Your task to perform on an android device: Show the shopping cart on bestbuy. Add razer deathadder to the cart on bestbuy, then select checkout. Image 0: 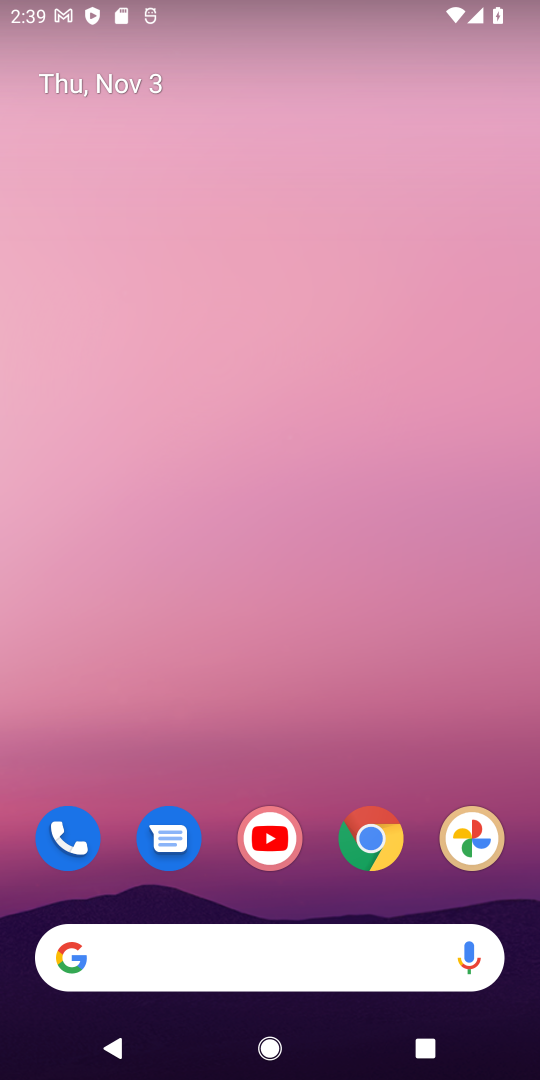
Step 0: drag from (314, 894) to (309, 85)
Your task to perform on an android device: Show the shopping cart on bestbuy. Add razer deathadder to the cart on bestbuy, then select checkout. Image 1: 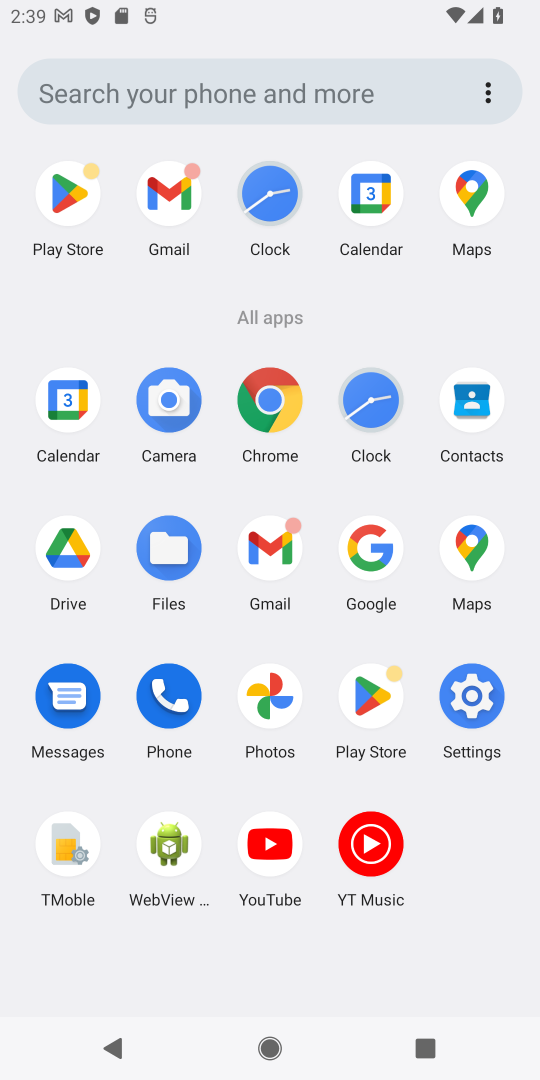
Step 1: click (268, 398)
Your task to perform on an android device: Show the shopping cart on bestbuy. Add razer deathadder to the cart on bestbuy, then select checkout. Image 2: 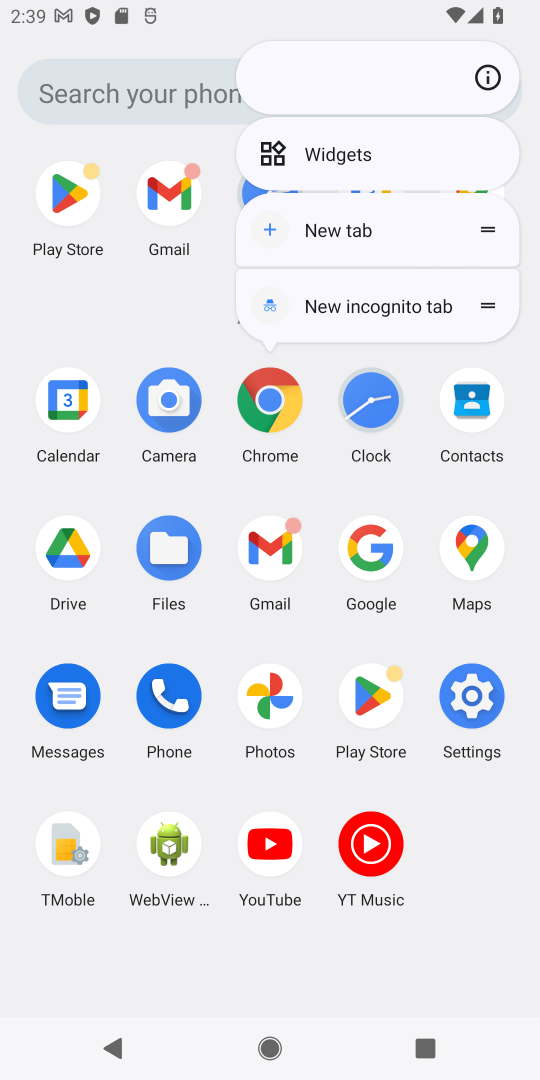
Step 2: click (268, 398)
Your task to perform on an android device: Show the shopping cart on bestbuy. Add razer deathadder to the cart on bestbuy, then select checkout. Image 3: 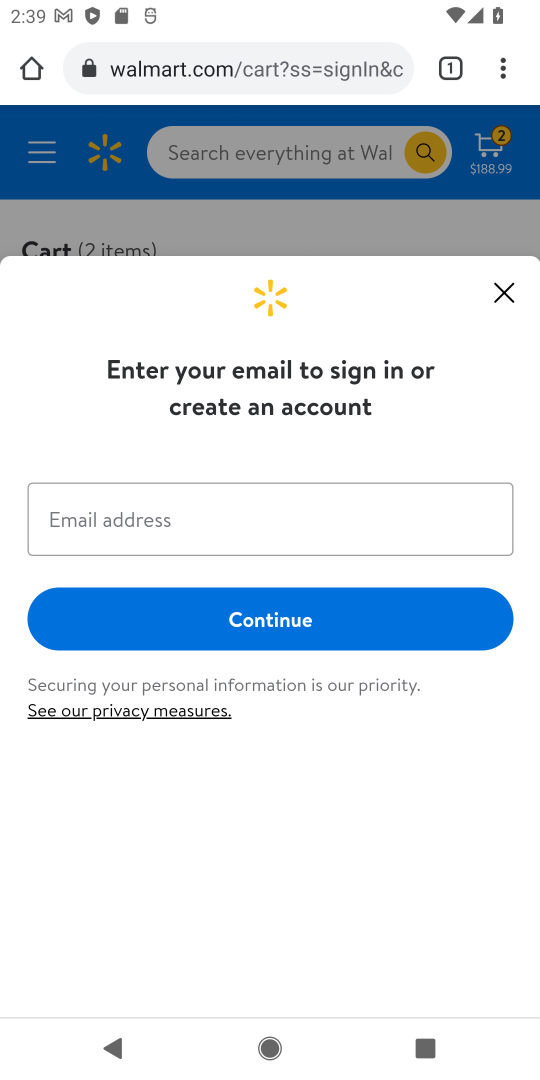
Step 3: click (316, 61)
Your task to perform on an android device: Show the shopping cart on bestbuy. Add razer deathadder to the cart on bestbuy, then select checkout. Image 4: 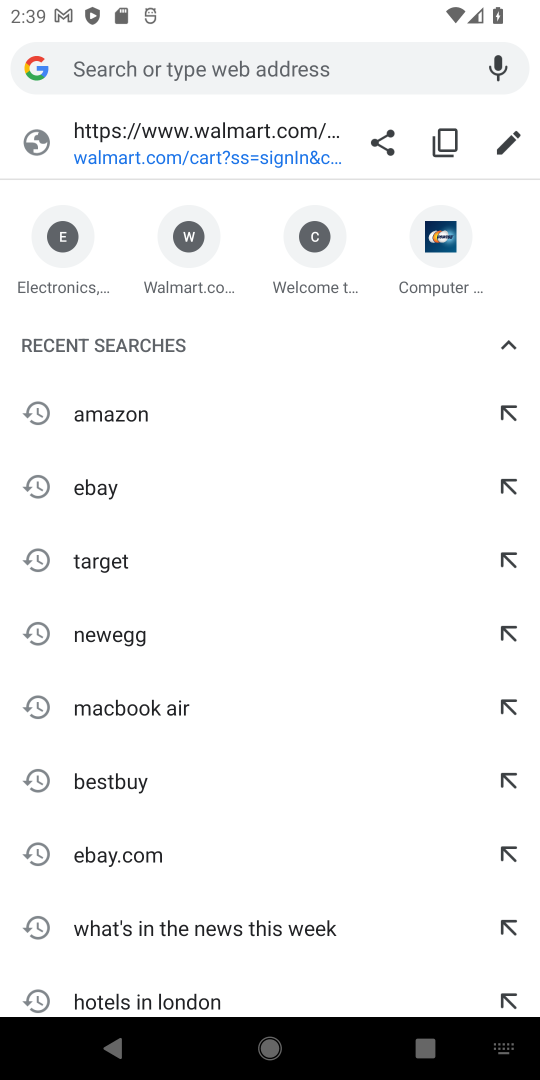
Step 4: type "bestbuy.com"
Your task to perform on an android device: Show the shopping cart on bestbuy. Add razer deathadder to the cart on bestbuy, then select checkout. Image 5: 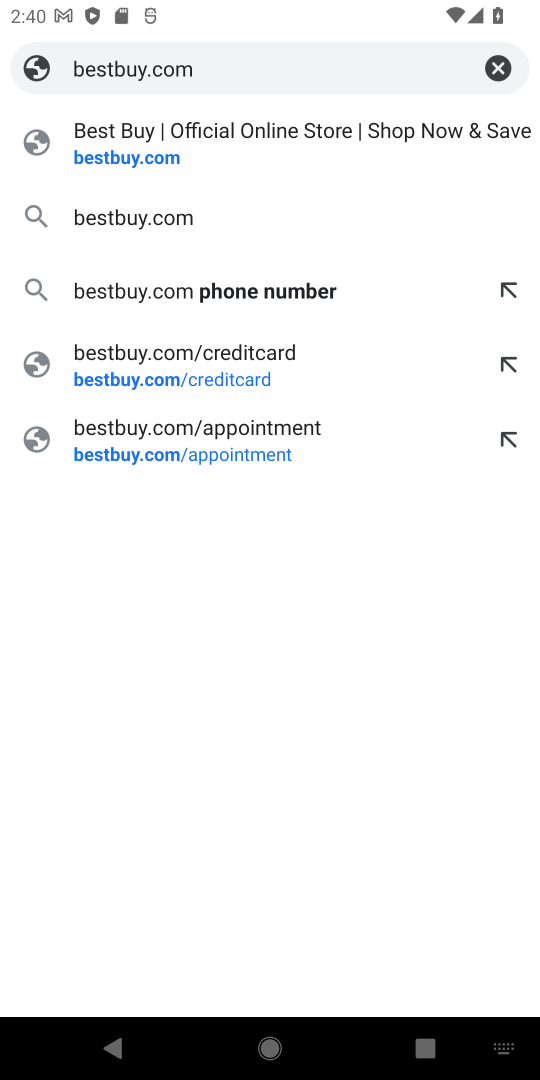
Step 5: press enter
Your task to perform on an android device: Show the shopping cart on bestbuy. Add razer deathadder to the cart on bestbuy, then select checkout. Image 6: 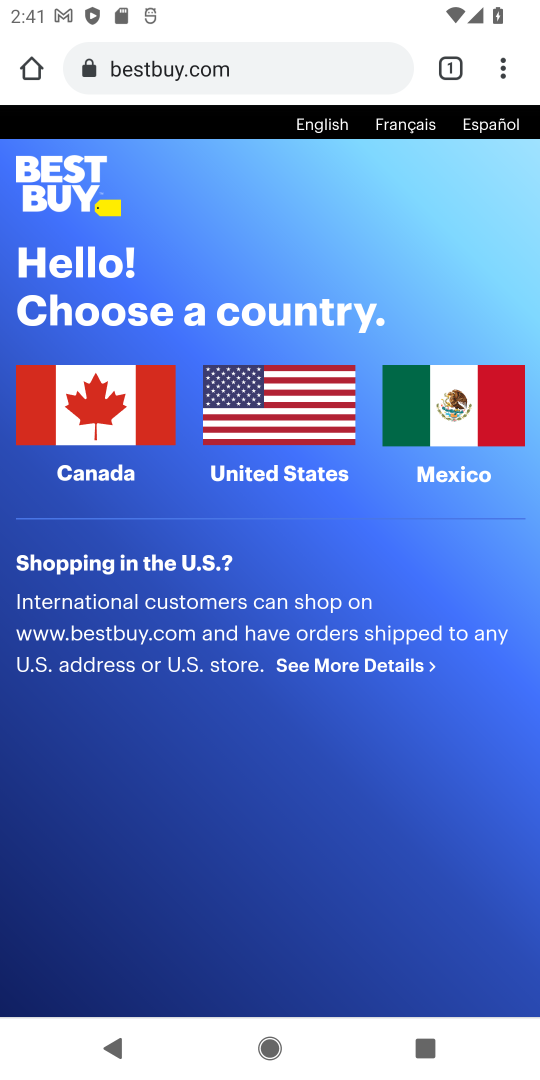
Step 6: click (67, 409)
Your task to perform on an android device: Show the shopping cart on bestbuy. Add razer deathadder to the cart on bestbuy, then select checkout. Image 7: 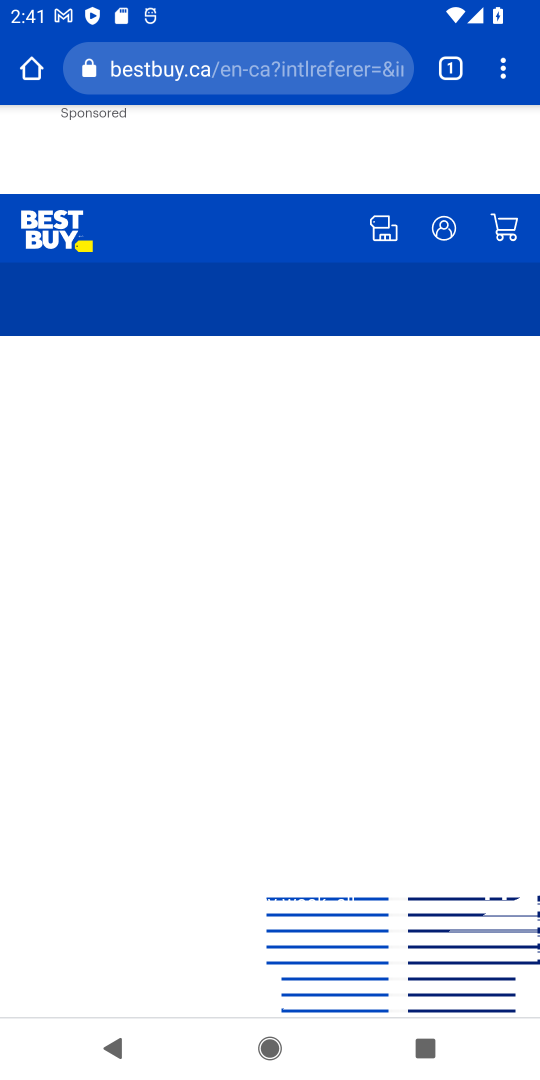
Step 7: click (412, 156)
Your task to perform on an android device: Show the shopping cart on bestbuy. Add razer deathadder to the cart on bestbuy, then select checkout. Image 8: 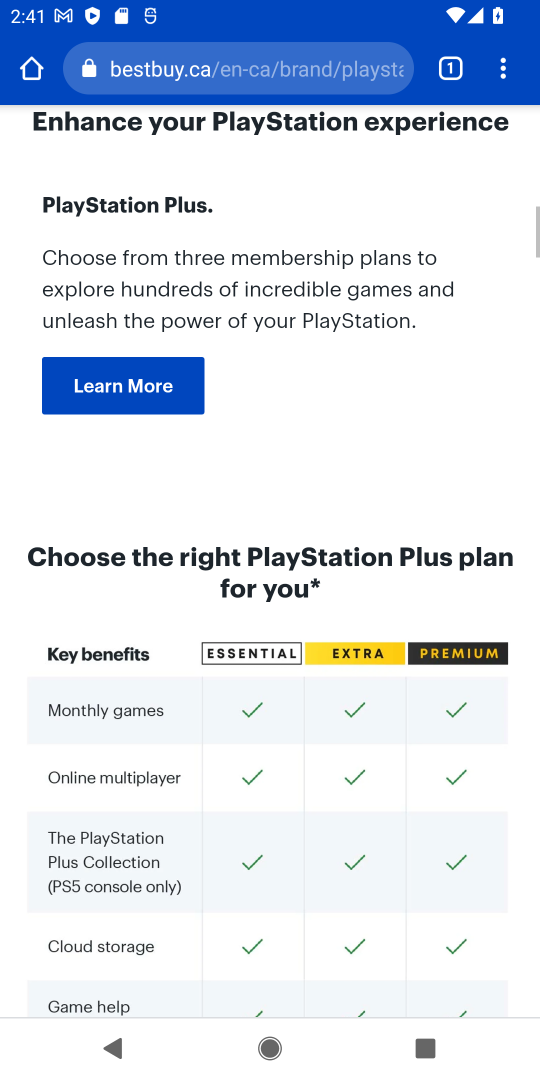
Step 8: drag from (318, 303) to (291, 964)
Your task to perform on an android device: Show the shopping cart on bestbuy. Add razer deathadder to the cart on bestbuy, then select checkout. Image 9: 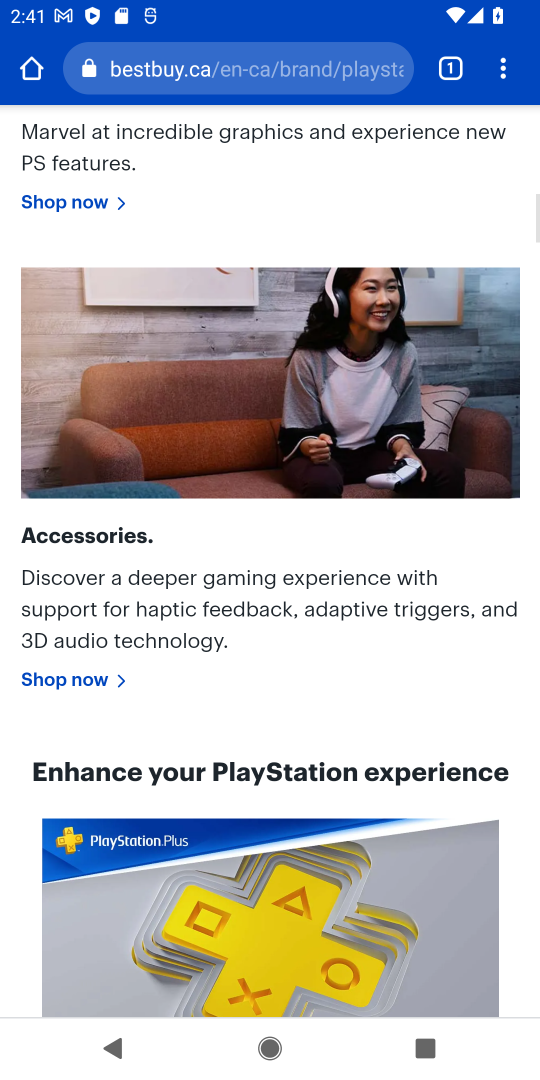
Step 9: drag from (273, 173) to (205, 942)
Your task to perform on an android device: Show the shopping cart on bestbuy. Add razer deathadder to the cart on bestbuy, then select checkout. Image 10: 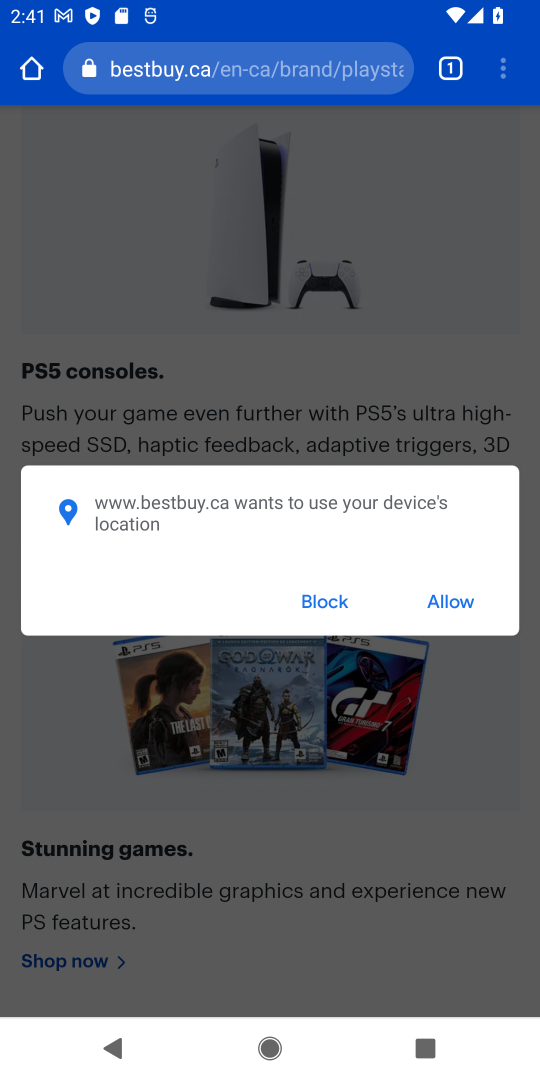
Step 10: click (316, 594)
Your task to perform on an android device: Show the shopping cart on bestbuy. Add razer deathadder to the cart on bestbuy, then select checkout. Image 11: 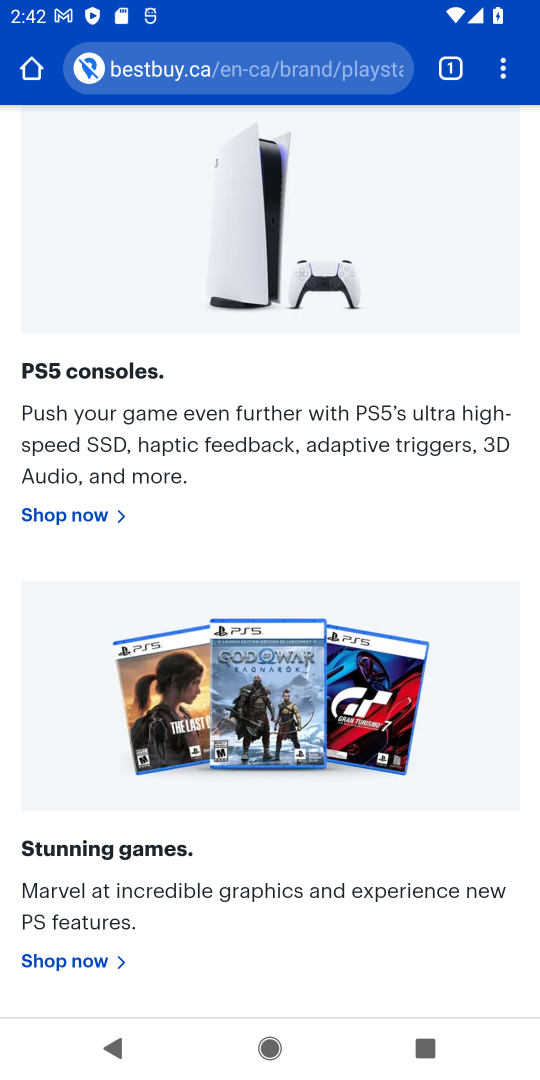
Step 11: drag from (151, 190) to (135, 1015)
Your task to perform on an android device: Show the shopping cart on bestbuy. Add razer deathadder to the cart on bestbuy, then select checkout. Image 12: 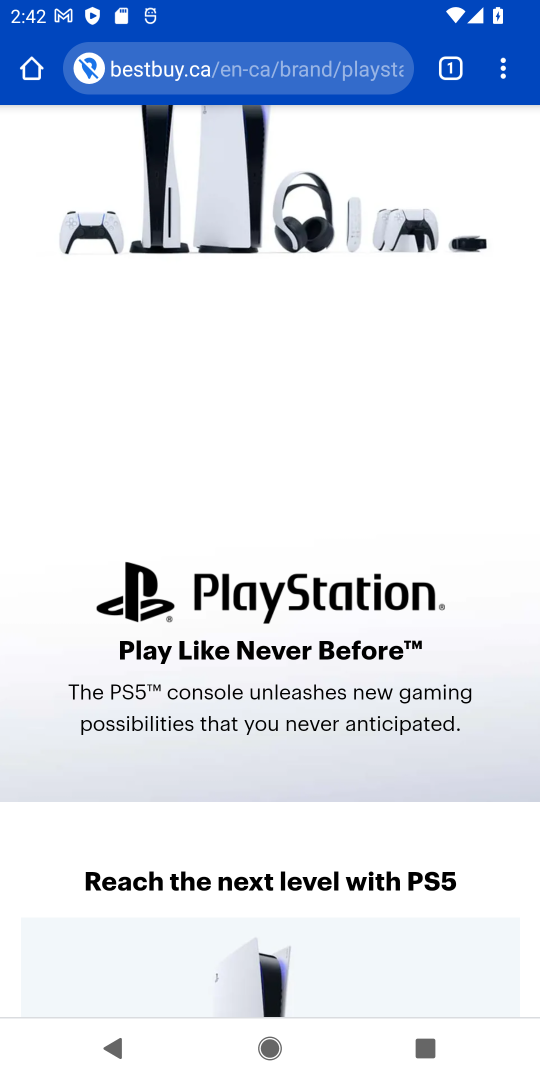
Step 12: drag from (247, 189) to (86, 887)
Your task to perform on an android device: Show the shopping cart on bestbuy. Add razer deathadder to the cart on bestbuy, then select checkout. Image 13: 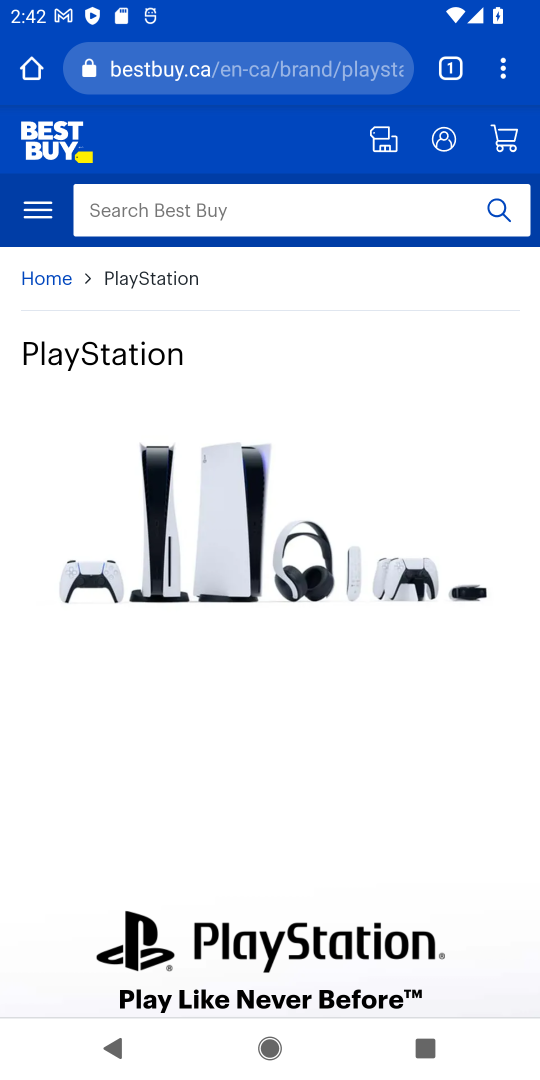
Step 13: click (303, 216)
Your task to perform on an android device: Show the shopping cart on bestbuy. Add razer deathadder to the cart on bestbuy, then select checkout. Image 14: 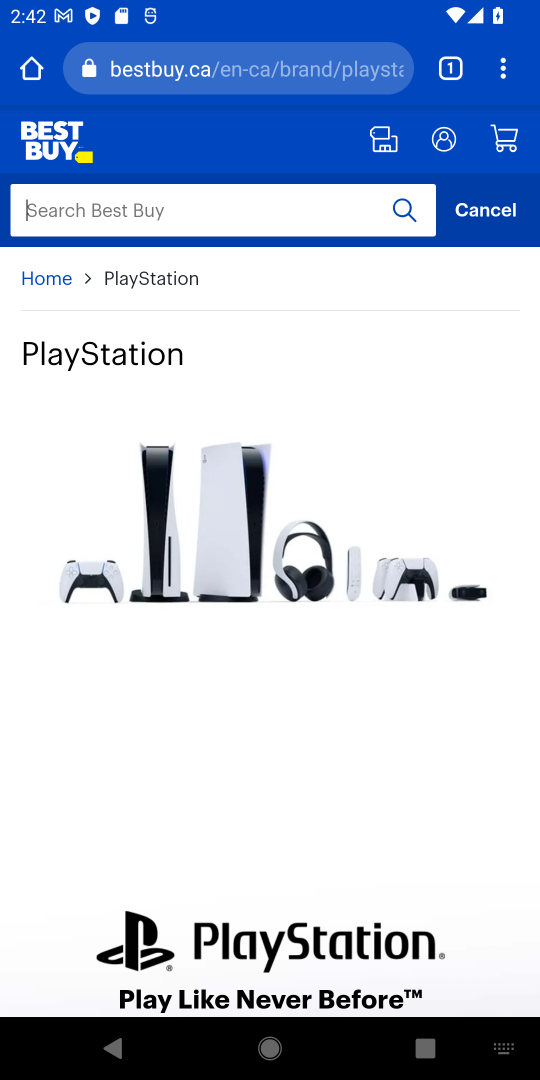
Step 14: click (505, 142)
Your task to perform on an android device: Show the shopping cart on bestbuy. Add razer deathadder to the cart on bestbuy, then select checkout. Image 15: 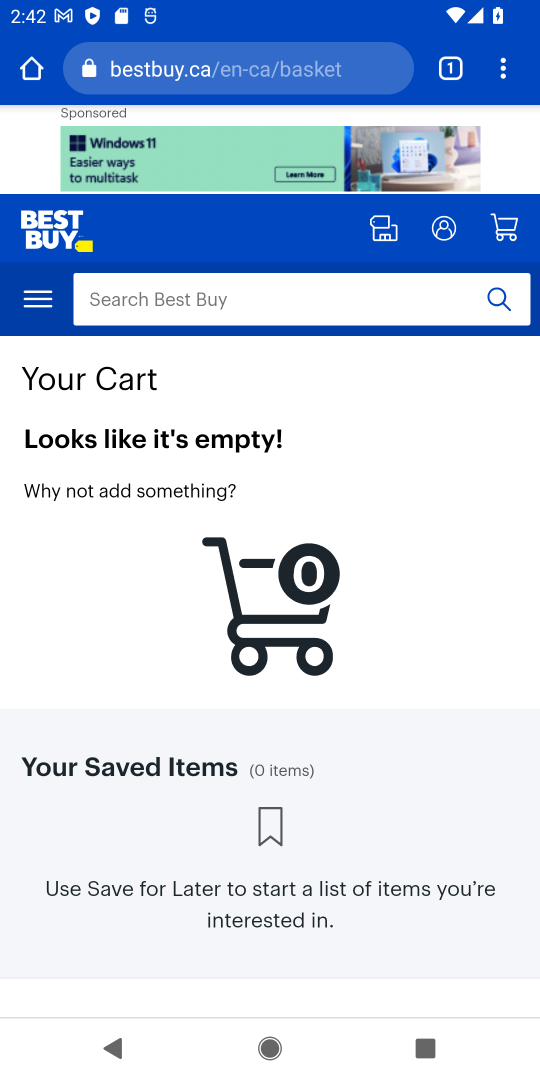
Step 15: click (281, 294)
Your task to perform on an android device: Show the shopping cart on bestbuy. Add razer deathadder to the cart on bestbuy, then select checkout. Image 16: 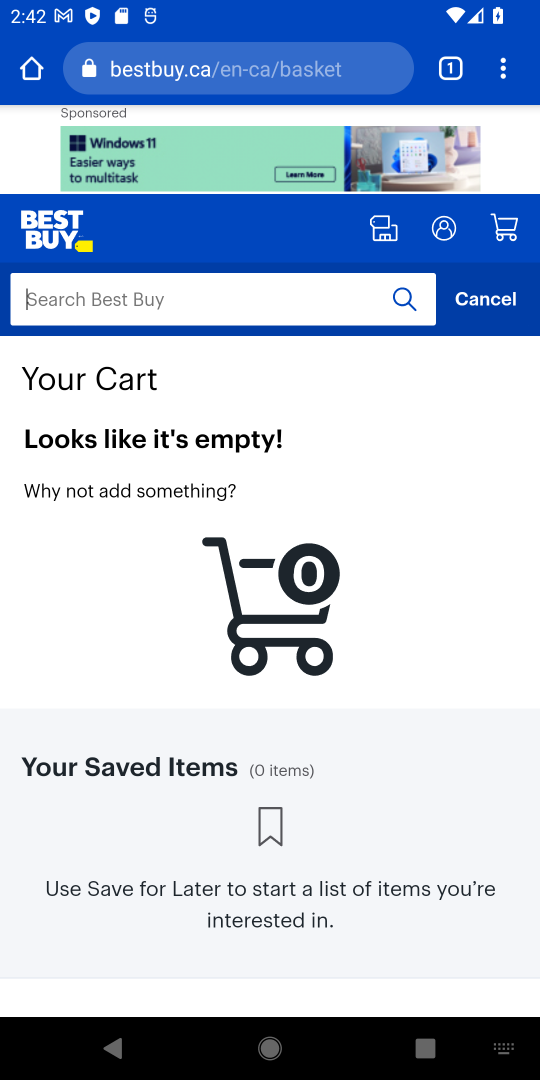
Step 16: type "razer deathadder"
Your task to perform on an android device: Show the shopping cart on bestbuy. Add razer deathadder to the cart on bestbuy, then select checkout. Image 17: 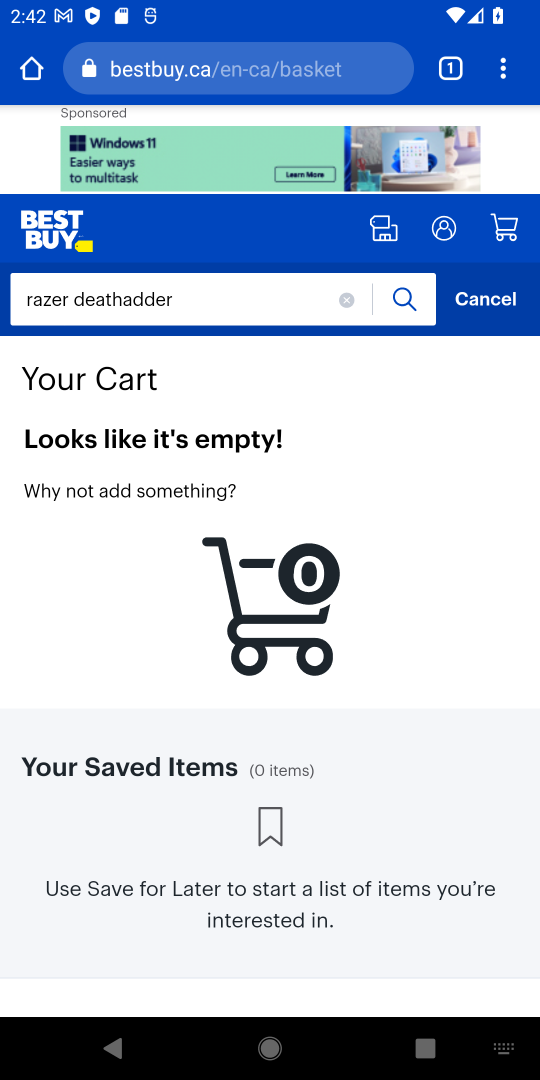
Step 17: press enter
Your task to perform on an android device: Show the shopping cart on bestbuy. Add razer deathadder to the cart on bestbuy, then select checkout. Image 18: 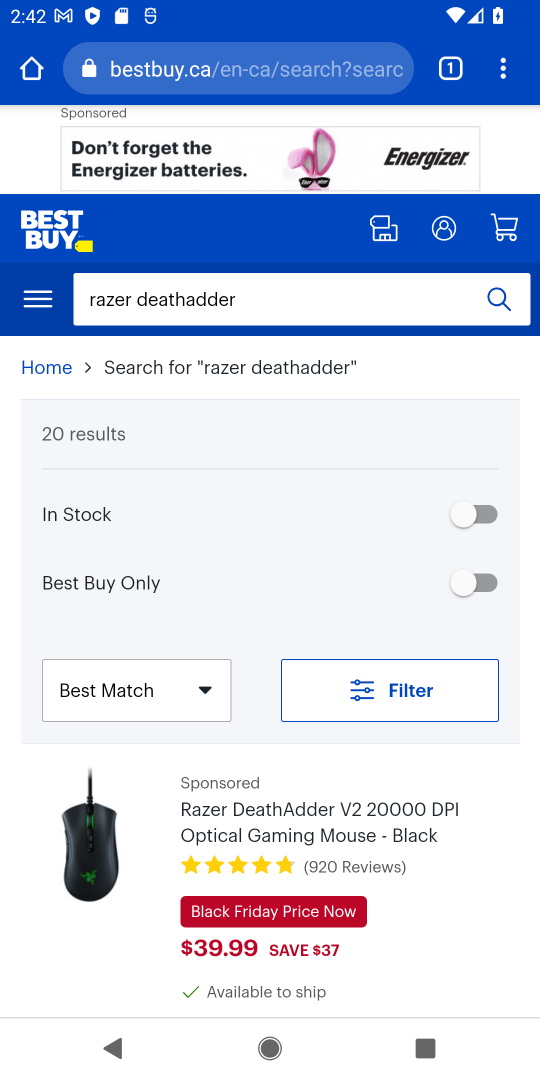
Step 18: drag from (241, 893) to (298, 287)
Your task to perform on an android device: Show the shopping cart on bestbuy. Add razer deathadder to the cart on bestbuy, then select checkout. Image 19: 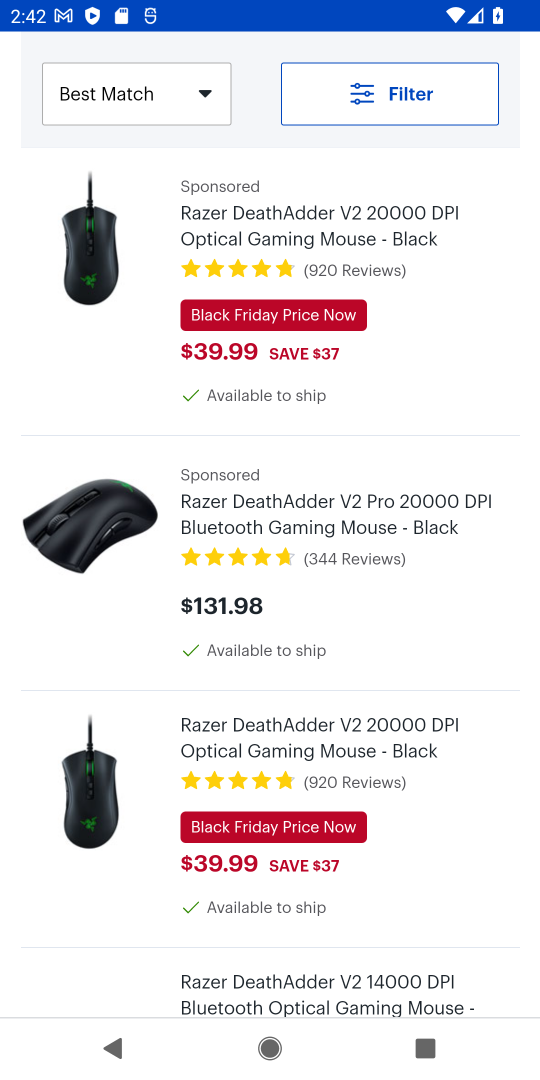
Step 19: drag from (368, 903) to (369, 818)
Your task to perform on an android device: Show the shopping cart on bestbuy. Add razer deathadder to the cart on bestbuy, then select checkout. Image 20: 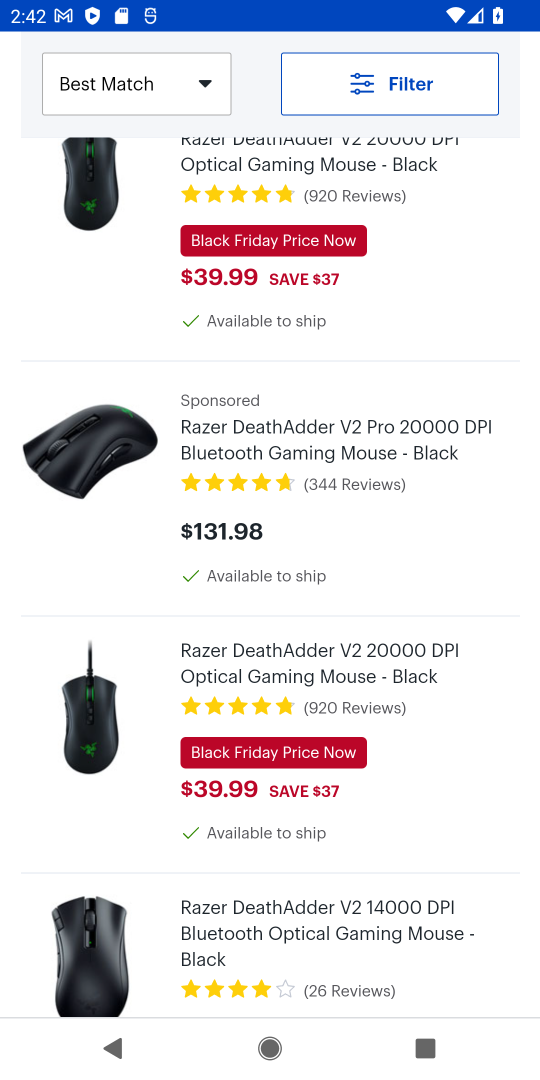
Step 20: click (315, 648)
Your task to perform on an android device: Show the shopping cart on bestbuy. Add razer deathadder to the cart on bestbuy, then select checkout. Image 21: 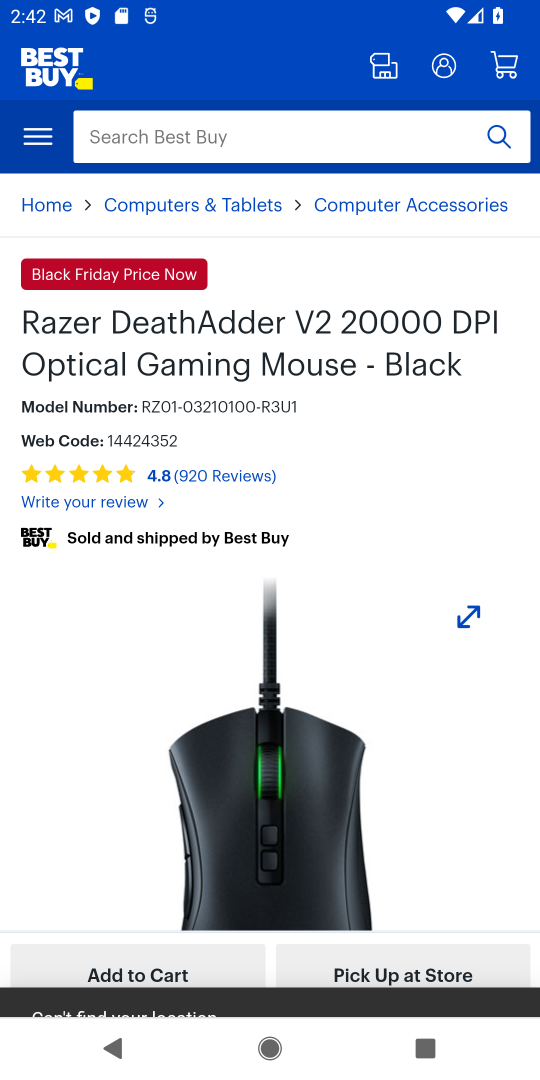
Step 21: drag from (260, 797) to (317, 240)
Your task to perform on an android device: Show the shopping cart on bestbuy. Add razer deathadder to the cart on bestbuy, then select checkout. Image 22: 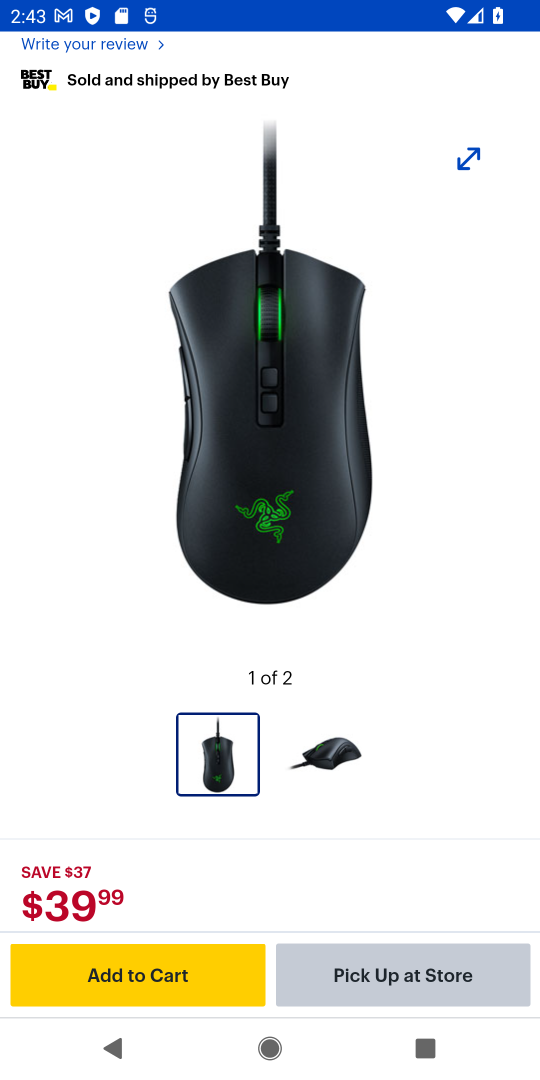
Step 22: click (197, 984)
Your task to perform on an android device: Show the shopping cart on bestbuy. Add razer deathadder to the cart on bestbuy, then select checkout. Image 23: 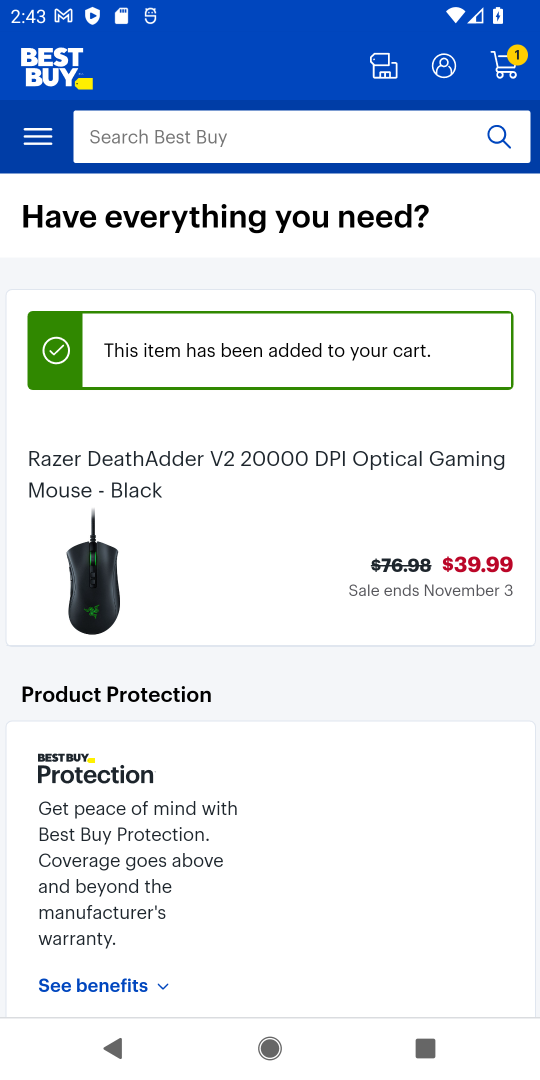
Step 23: drag from (256, 844) to (300, 464)
Your task to perform on an android device: Show the shopping cart on bestbuy. Add razer deathadder to the cart on bestbuy, then select checkout. Image 24: 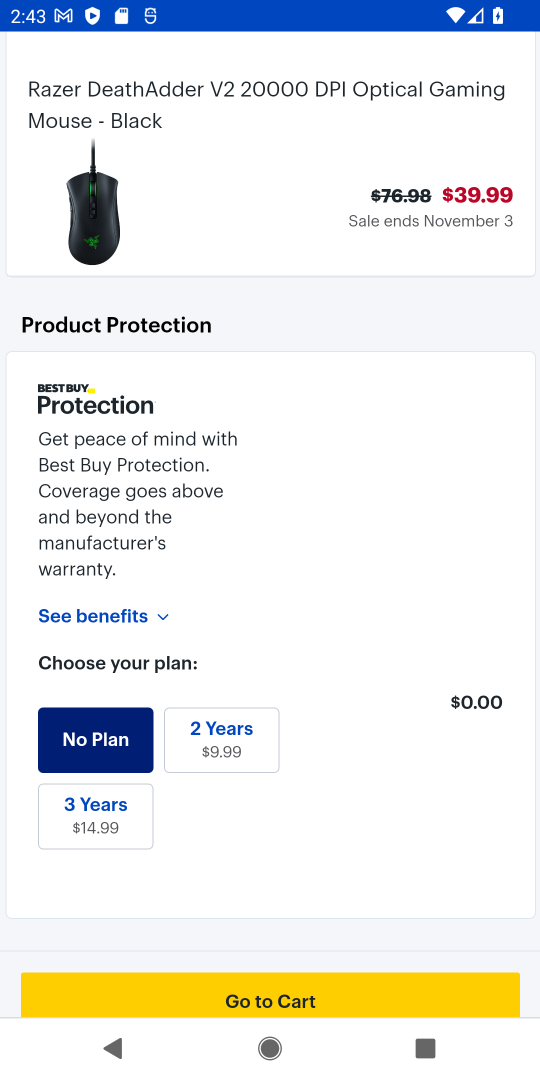
Step 24: drag from (256, 939) to (310, 643)
Your task to perform on an android device: Show the shopping cart on bestbuy. Add razer deathadder to the cart on bestbuy, then select checkout. Image 25: 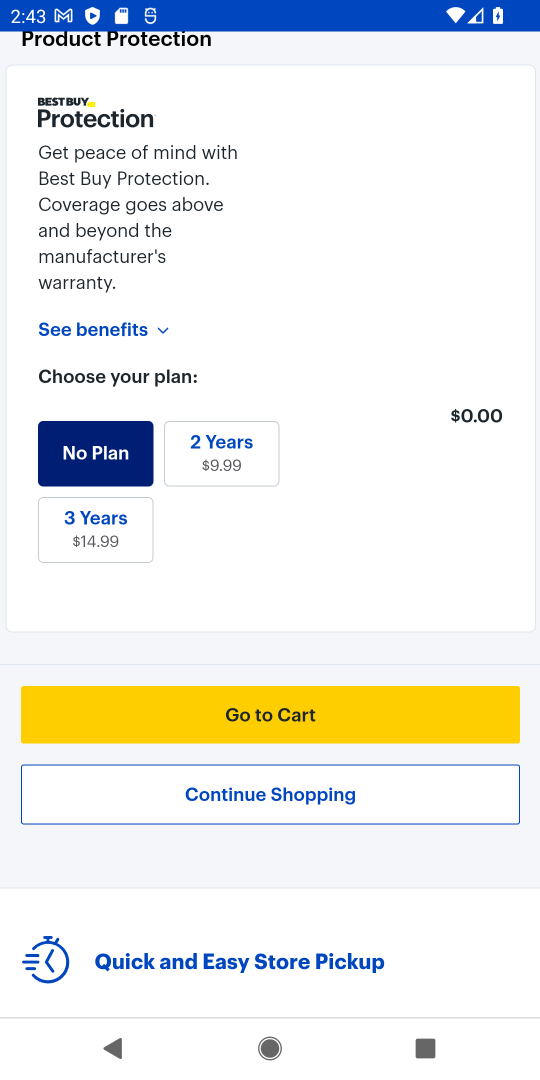
Step 25: click (290, 709)
Your task to perform on an android device: Show the shopping cart on bestbuy. Add razer deathadder to the cart on bestbuy, then select checkout. Image 26: 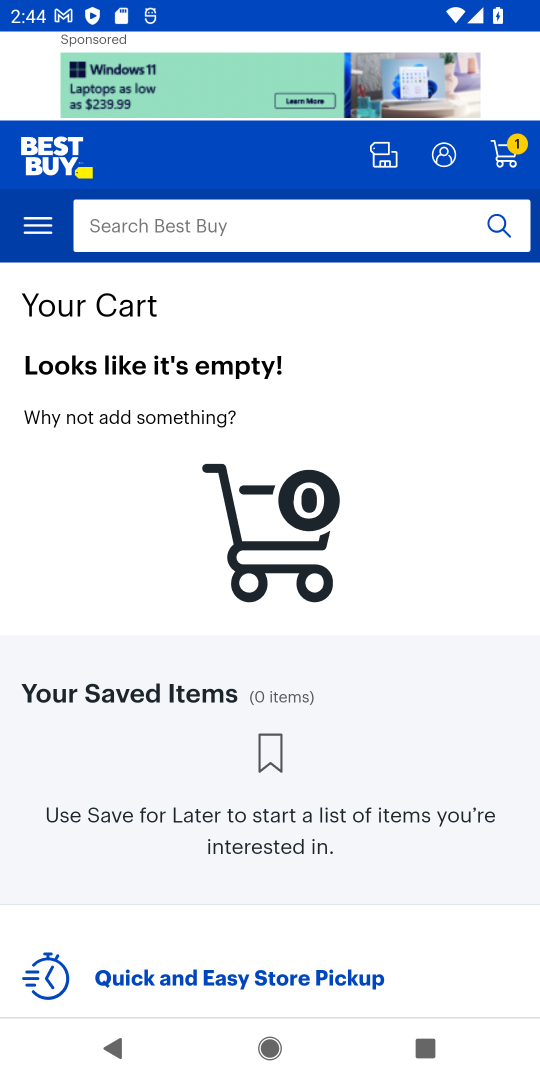
Step 26: click (320, 228)
Your task to perform on an android device: Show the shopping cart on bestbuy. Add razer deathadder to the cart on bestbuy, then select checkout. Image 27: 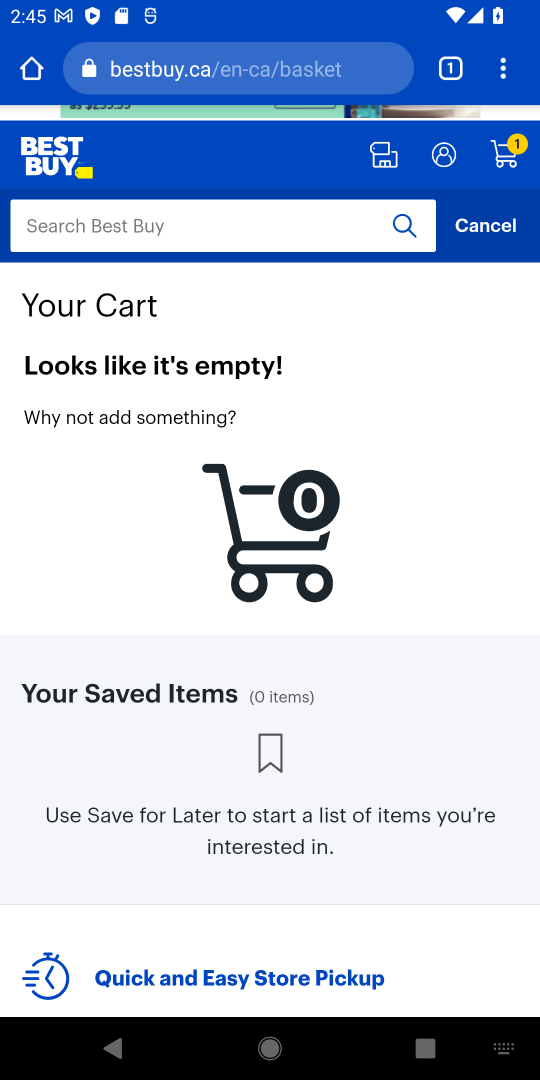
Step 27: type "razer deathadder"
Your task to perform on an android device: Show the shopping cart on bestbuy. Add razer deathadder to the cart on bestbuy, then select checkout. Image 28: 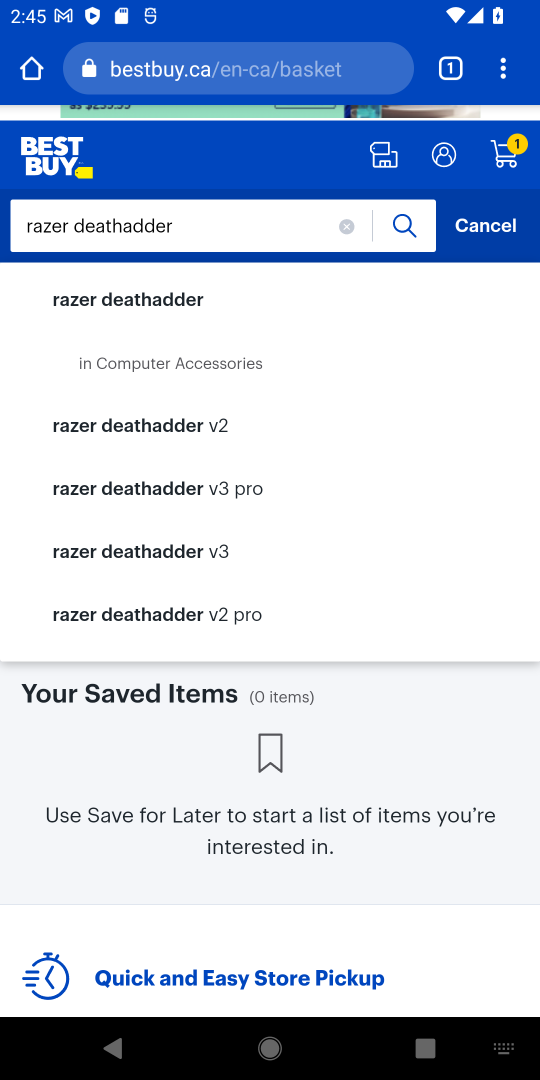
Step 28: press enter
Your task to perform on an android device: Show the shopping cart on bestbuy. Add razer deathadder to the cart on bestbuy, then select checkout. Image 29: 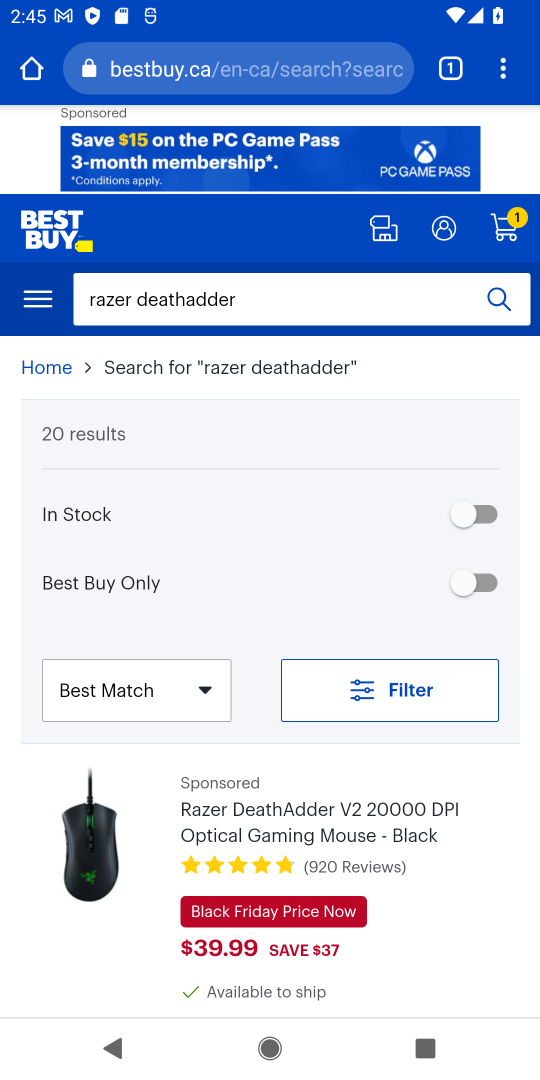
Step 29: drag from (296, 768) to (209, 269)
Your task to perform on an android device: Show the shopping cart on bestbuy. Add razer deathadder to the cart on bestbuy, then select checkout. Image 30: 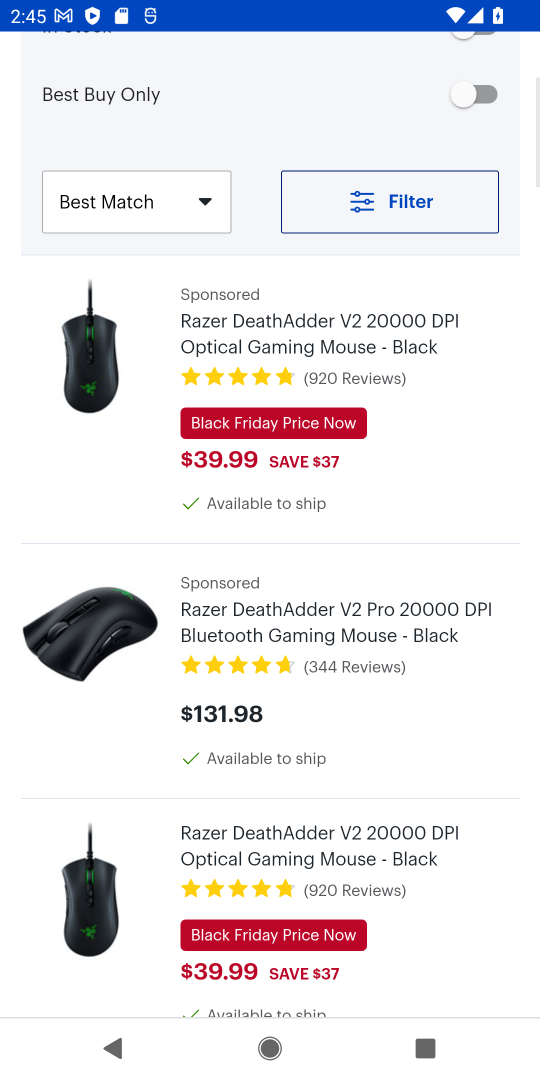
Step 30: drag from (393, 869) to (313, 257)
Your task to perform on an android device: Show the shopping cart on bestbuy. Add razer deathadder to the cart on bestbuy, then select checkout. Image 31: 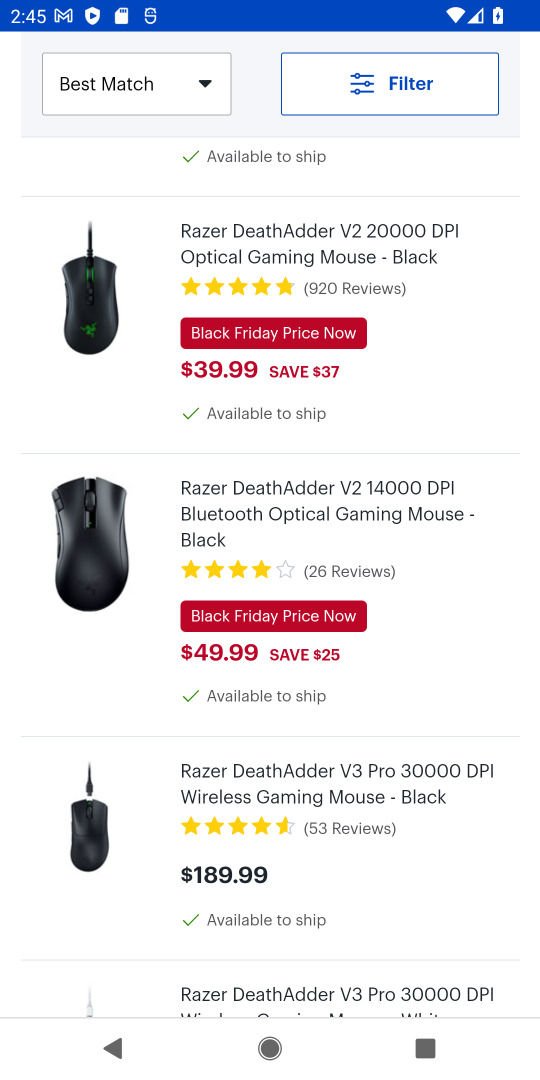
Step 31: click (288, 242)
Your task to perform on an android device: Show the shopping cart on bestbuy. Add razer deathadder to the cart on bestbuy, then select checkout. Image 32: 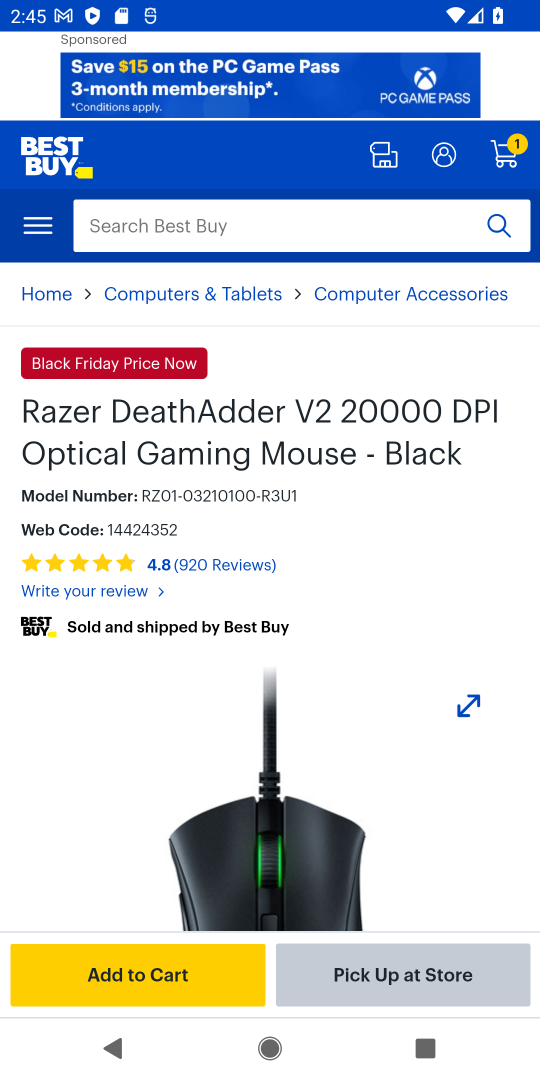
Step 32: drag from (390, 678) to (322, 160)
Your task to perform on an android device: Show the shopping cart on bestbuy. Add razer deathadder to the cart on bestbuy, then select checkout. Image 33: 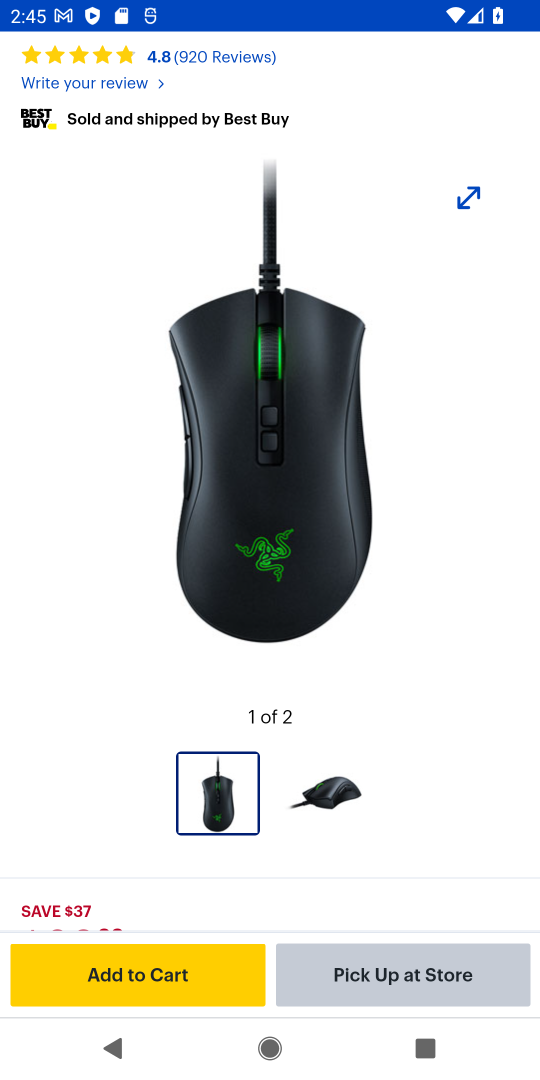
Step 33: click (109, 981)
Your task to perform on an android device: Show the shopping cart on bestbuy. Add razer deathadder to the cart on bestbuy, then select checkout. Image 34: 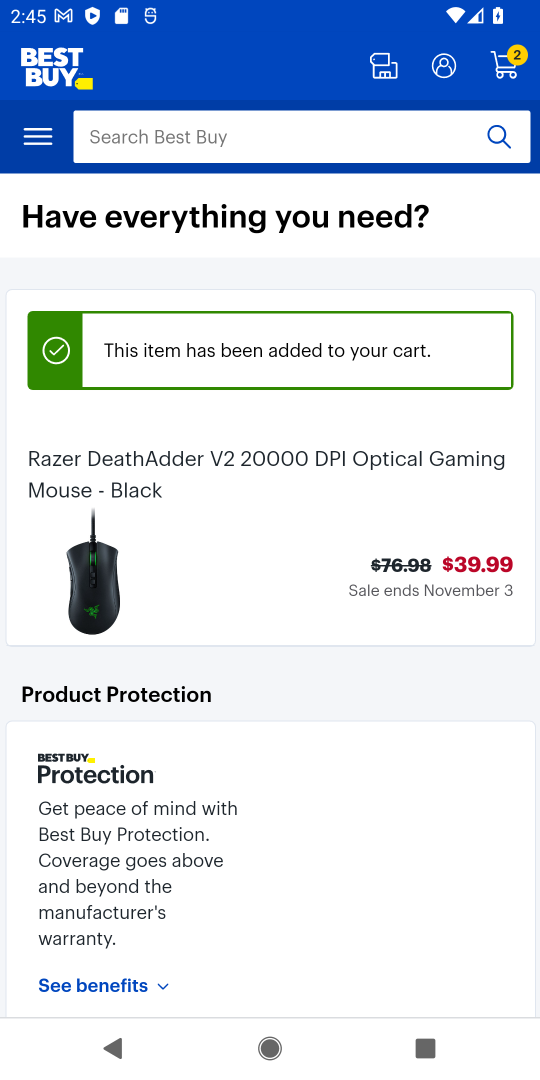
Step 34: click (514, 46)
Your task to perform on an android device: Show the shopping cart on bestbuy. Add razer deathadder to the cart on bestbuy, then select checkout. Image 35: 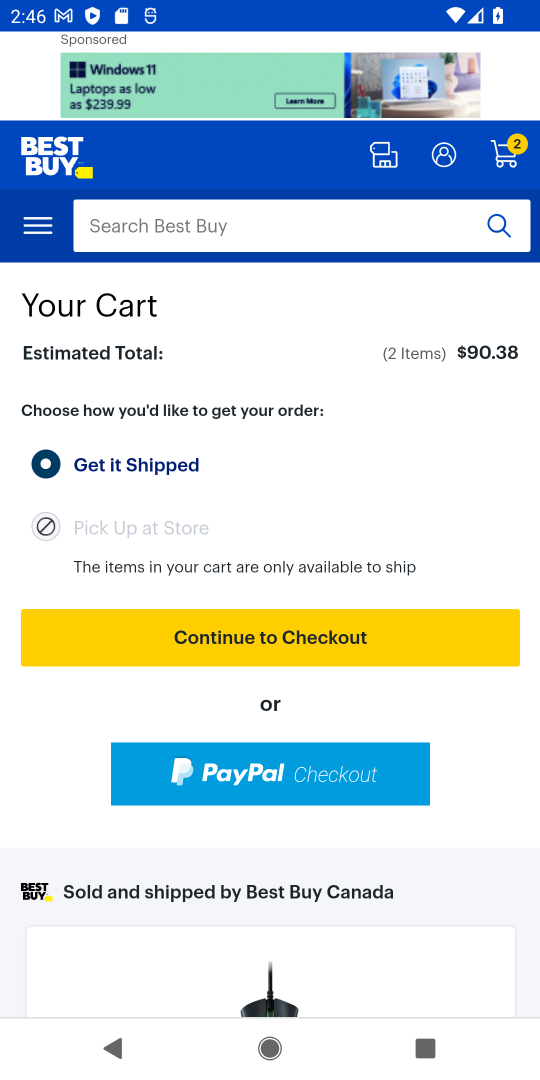
Step 35: click (280, 639)
Your task to perform on an android device: Show the shopping cart on bestbuy. Add razer deathadder to the cart on bestbuy, then select checkout. Image 36: 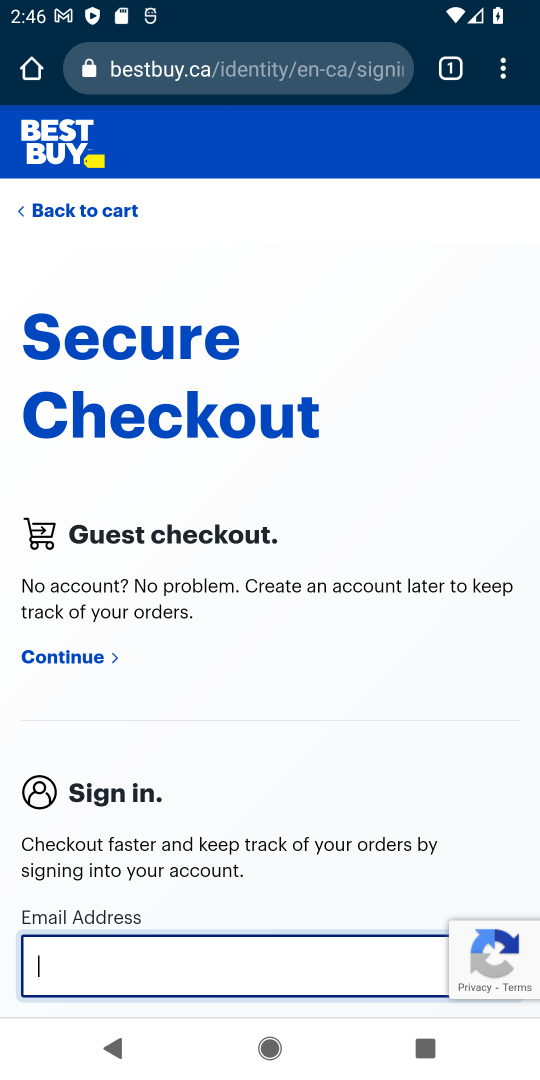
Step 36: task complete